Your task to perform on an android device: turn on data saver in the chrome app Image 0: 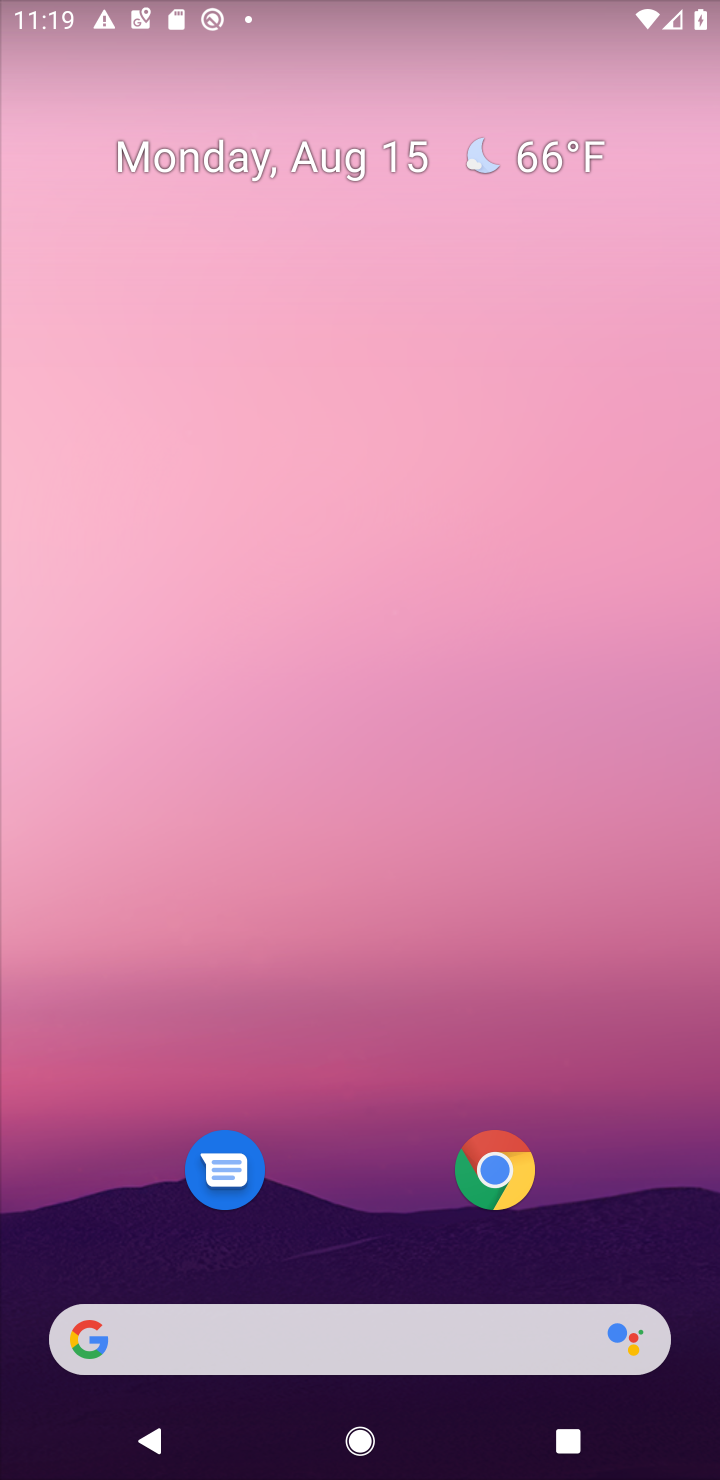
Step 0: click (388, 50)
Your task to perform on an android device: turn on data saver in the chrome app Image 1: 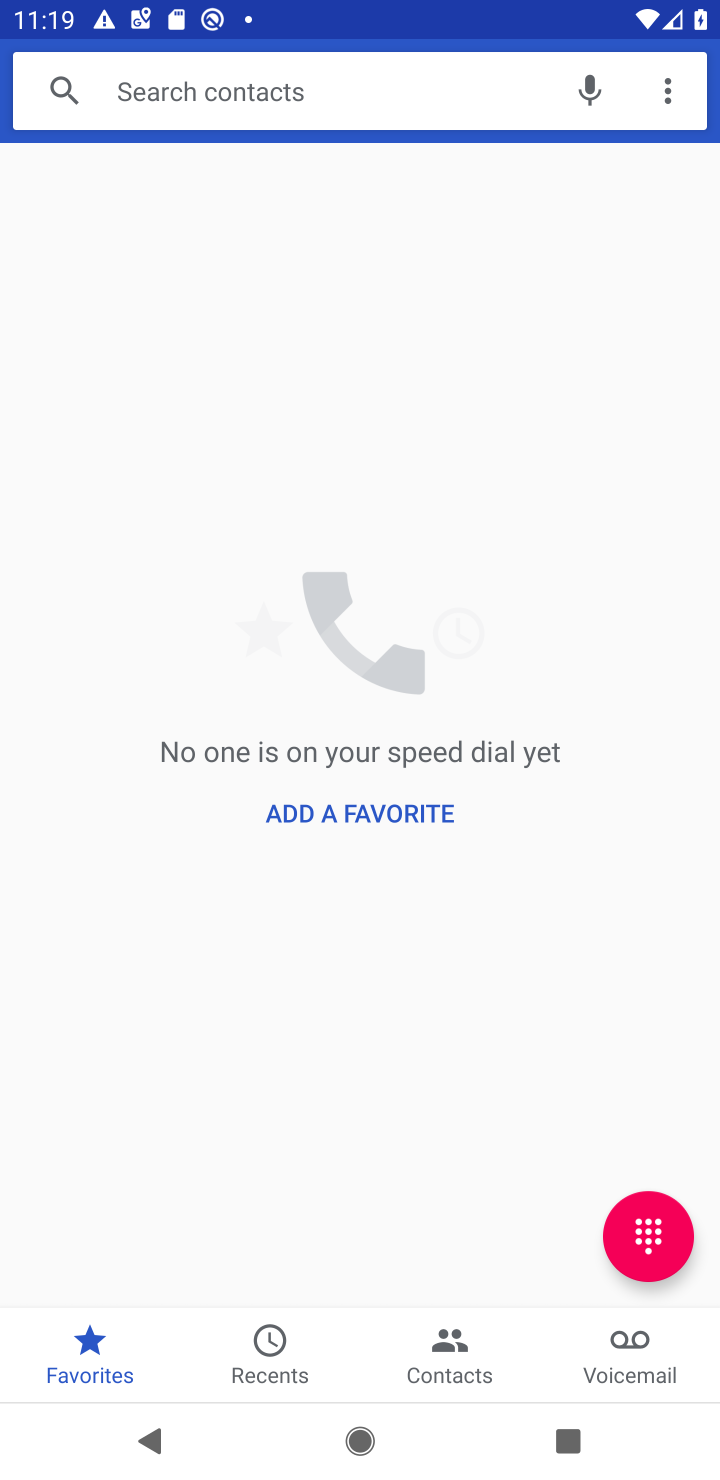
Step 1: press home button
Your task to perform on an android device: turn on data saver in the chrome app Image 2: 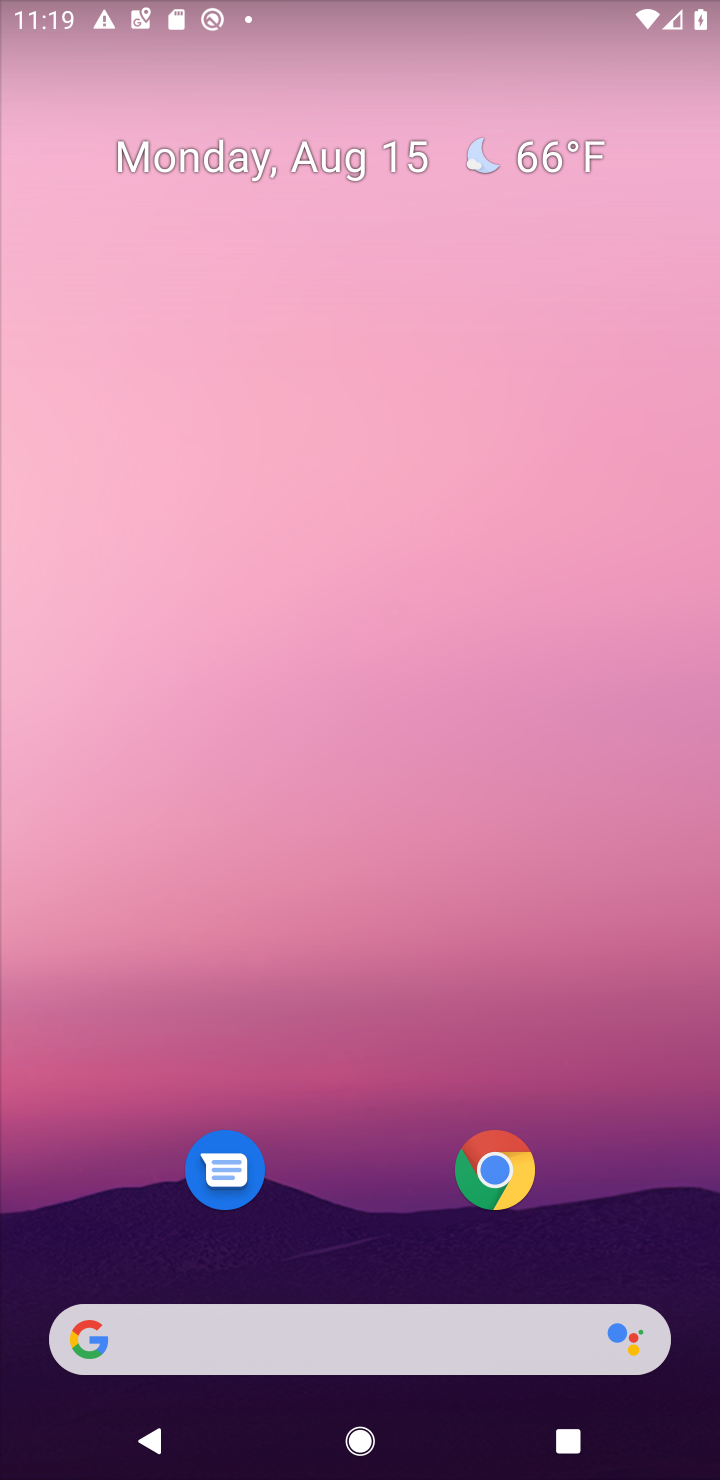
Step 2: drag from (370, 1269) to (336, 75)
Your task to perform on an android device: turn on data saver in the chrome app Image 3: 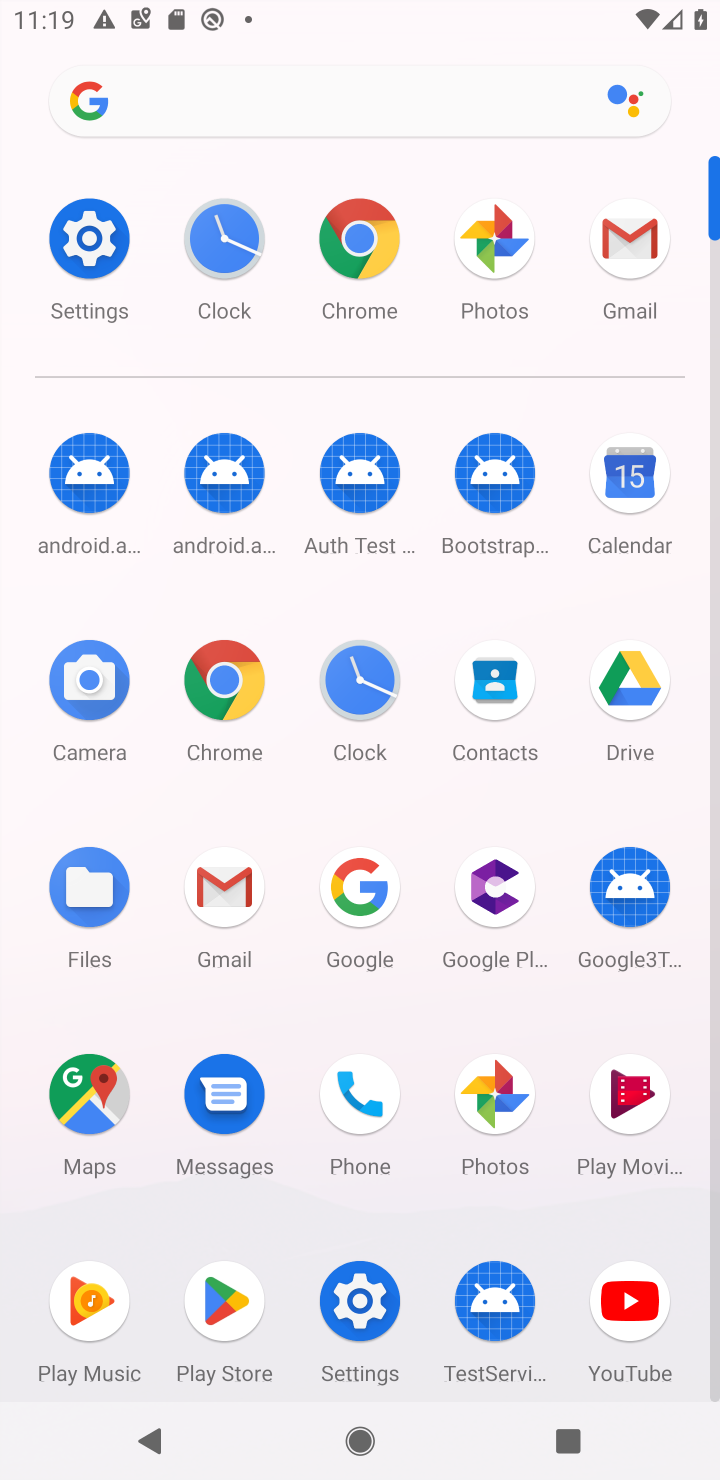
Step 3: click (354, 228)
Your task to perform on an android device: turn on data saver in the chrome app Image 4: 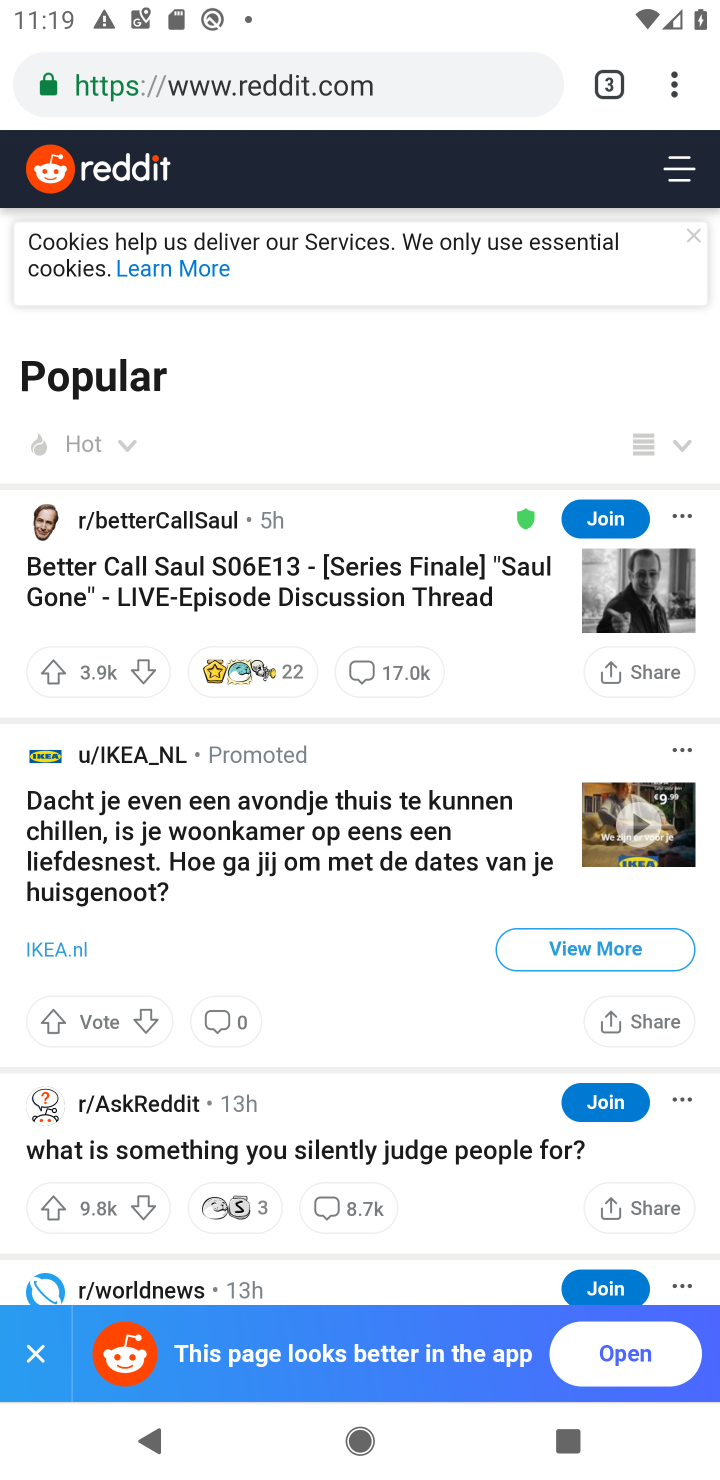
Step 4: click (676, 72)
Your task to perform on an android device: turn on data saver in the chrome app Image 5: 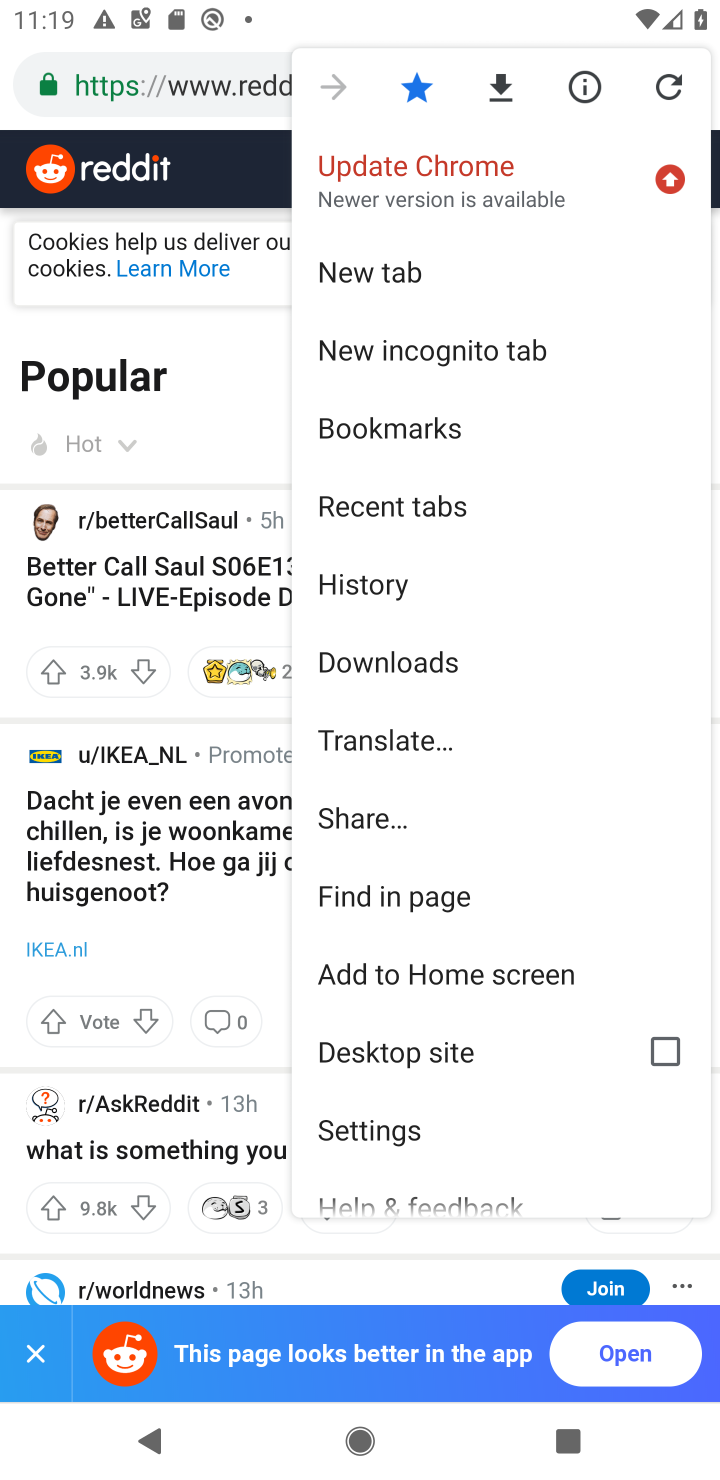
Step 5: click (426, 1124)
Your task to perform on an android device: turn on data saver in the chrome app Image 6: 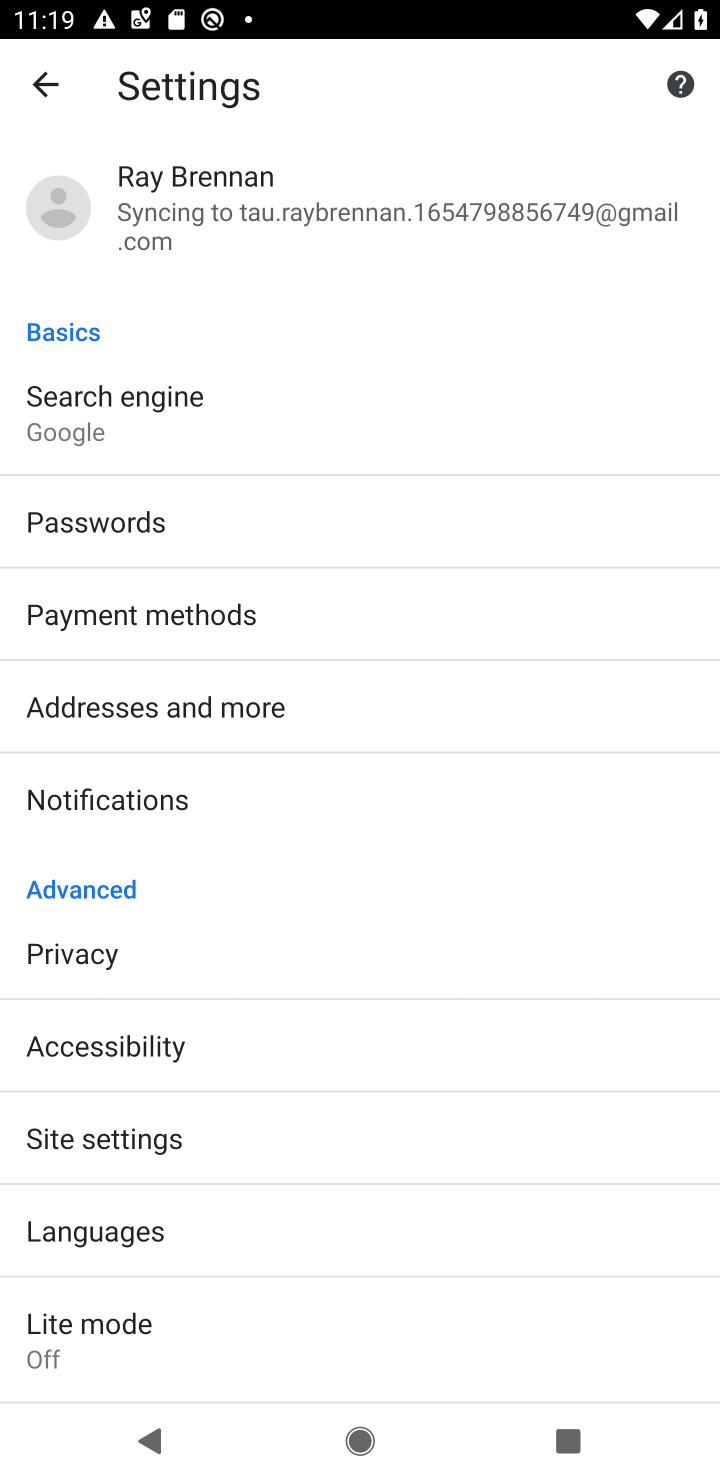
Step 6: click (143, 1343)
Your task to perform on an android device: turn on data saver in the chrome app Image 7: 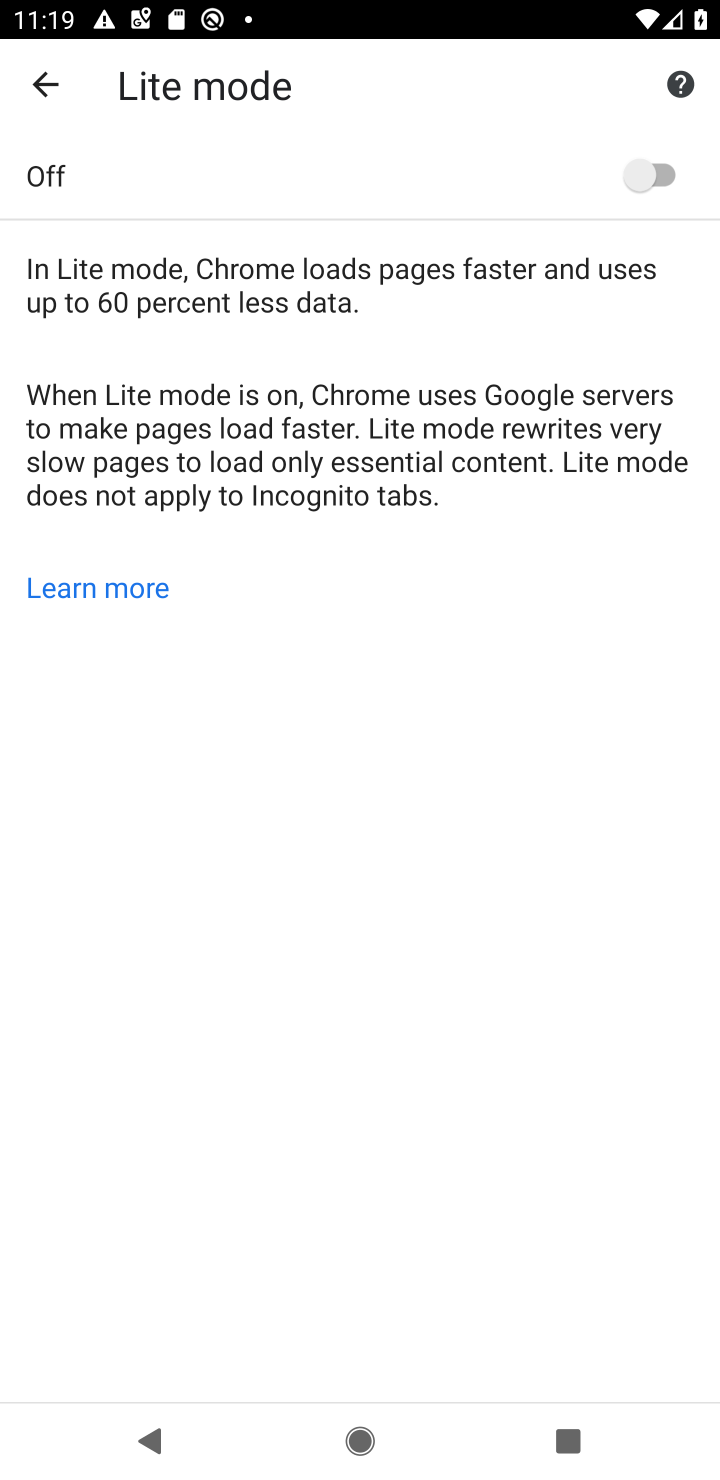
Step 7: click (656, 176)
Your task to perform on an android device: turn on data saver in the chrome app Image 8: 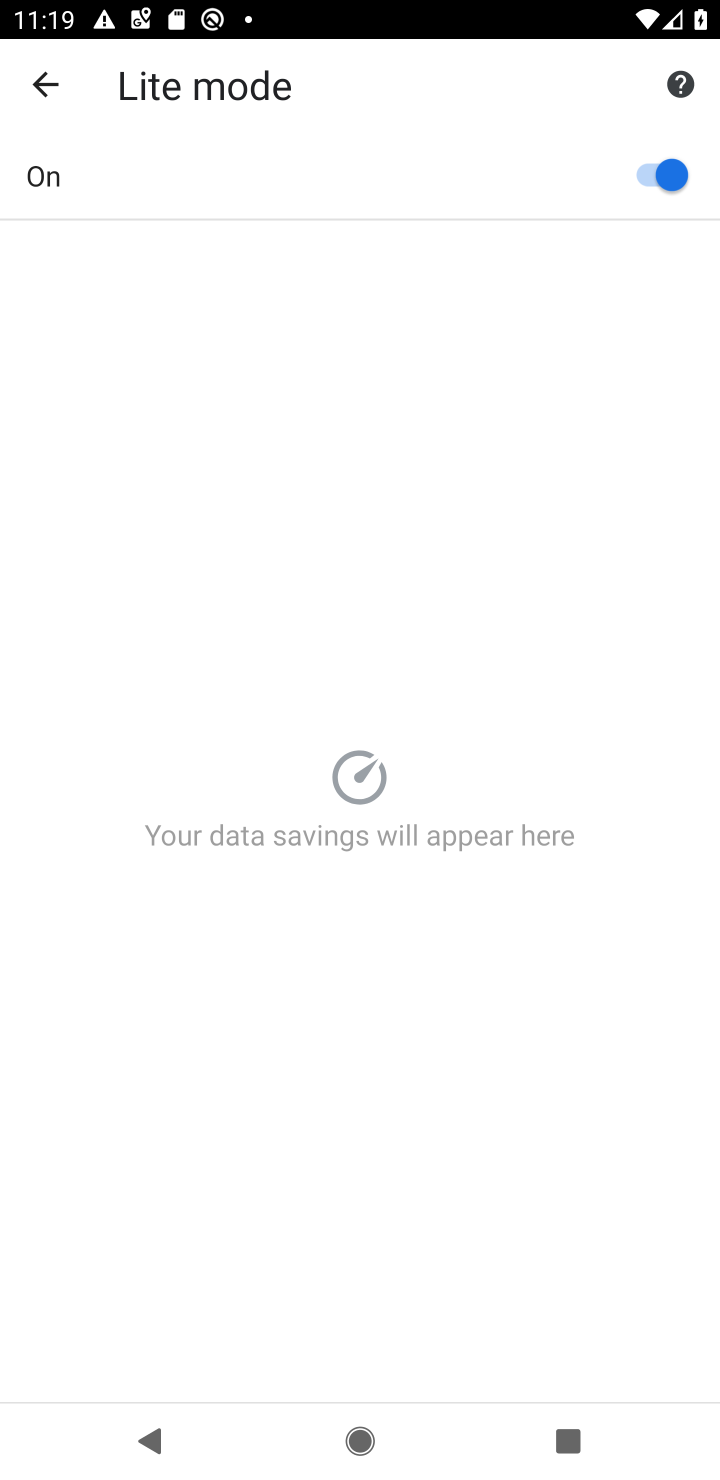
Step 8: task complete